Your task to perform on an android device: Open notification settings Image 0: 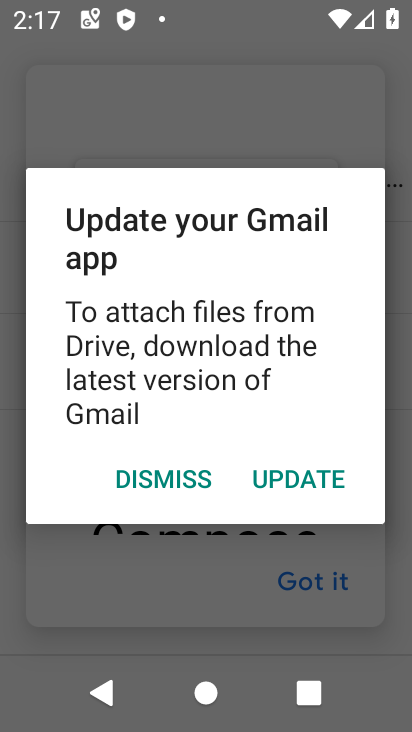
Step 0: press back button
Your task to perform on an android device: Open notification settings Image 1: 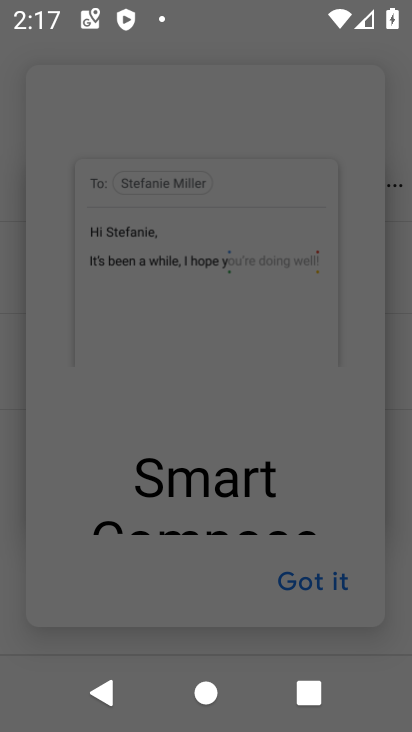
Step 1: press back button
Your task to perform on an android device: Open notification settings Image 2: 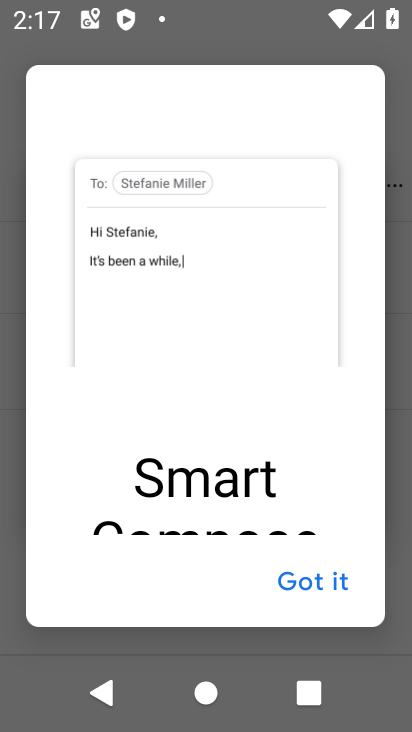
Step 2: press home button
Your task to perform on an android device: Open notification settings Image 3: 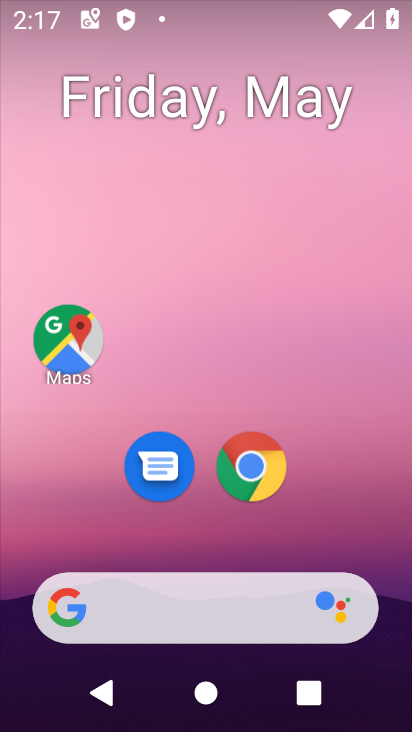
Step 3: drag from (177, 537) to (303, 30)
Your task to perform on an android device: Open notification settings Image 4: 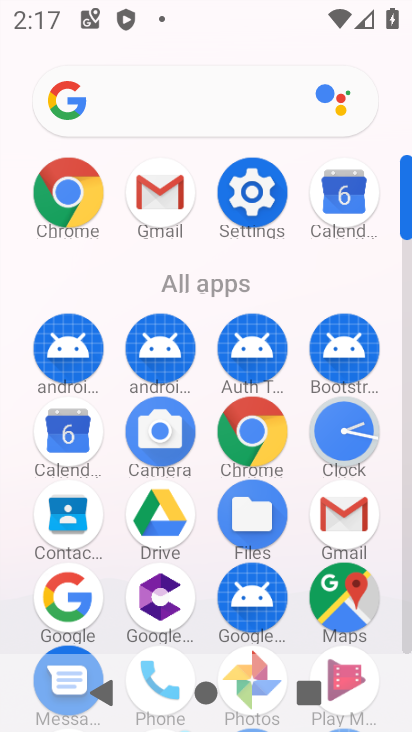
Step 4: click (246, 199)
Your task to perform on an android device: Open notification settings Image 5: 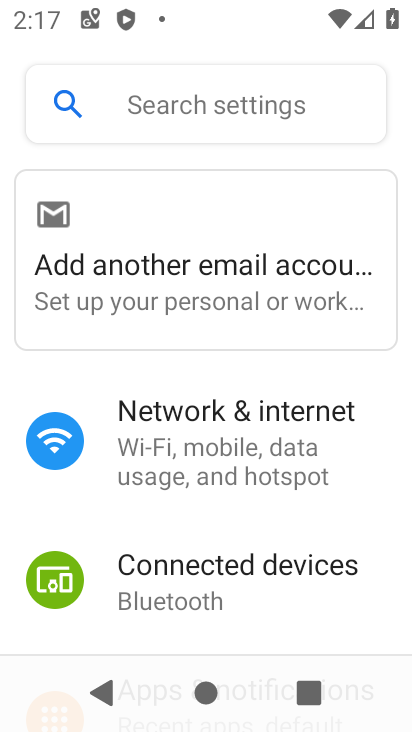
Step 5: drag from (223, 598) to (324, 199)
Your task to perform on an android device: Open notification settings Image 6: 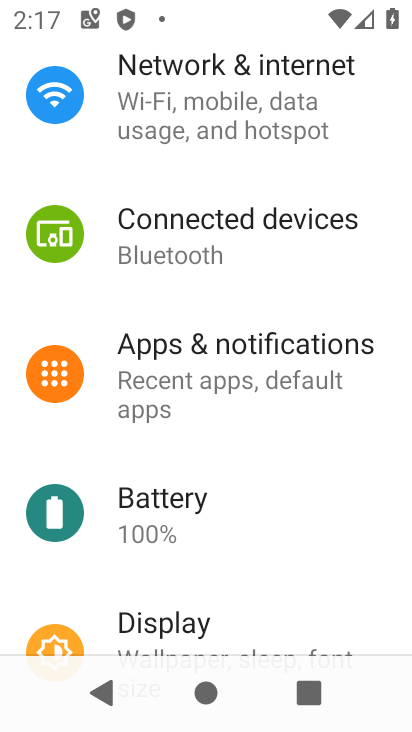
Step 6: click (259, 351)
Your task to perform on an android device: Open notification settings Image 7: 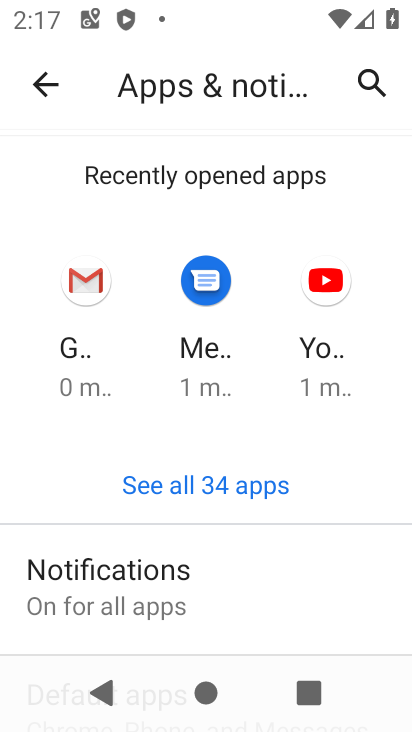
Step 7: task complete